Your task to perform on an android device: turn off airplane mode Image 0: 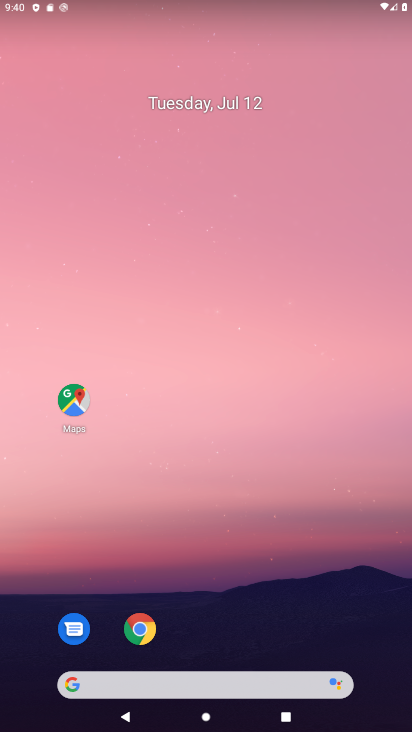
Step 0: drag from (219, 100) to (211, 691)
Your task to perform on an android device: turn off airplane mode Image 1: 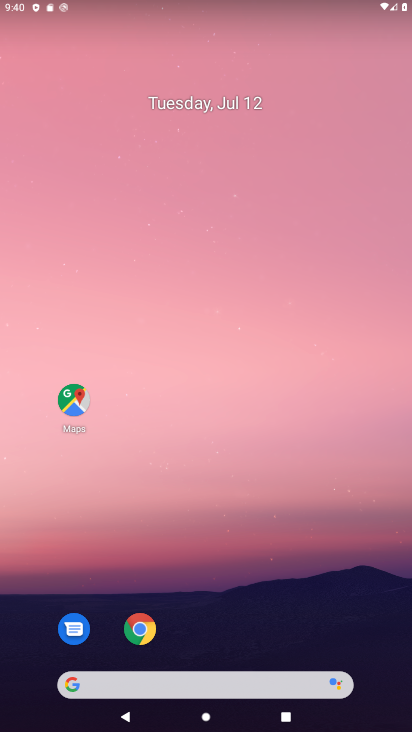
Step 1: click (83, 430)
Your task to perform on an android device: turn off airplane mode Image 2: 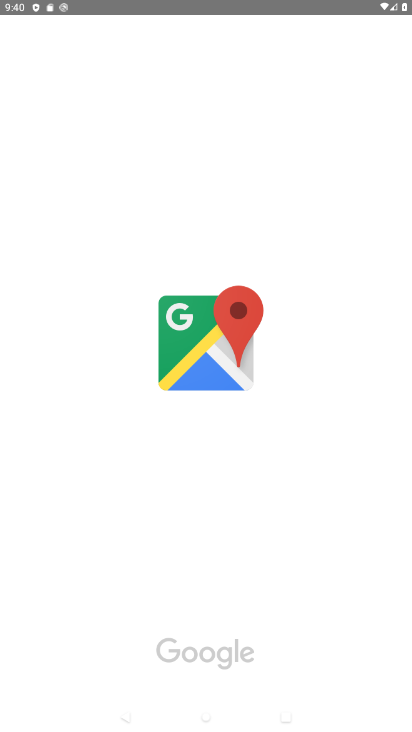
Step 2: task complete